Your task to perform on an android device: Open battery settings Image 0: 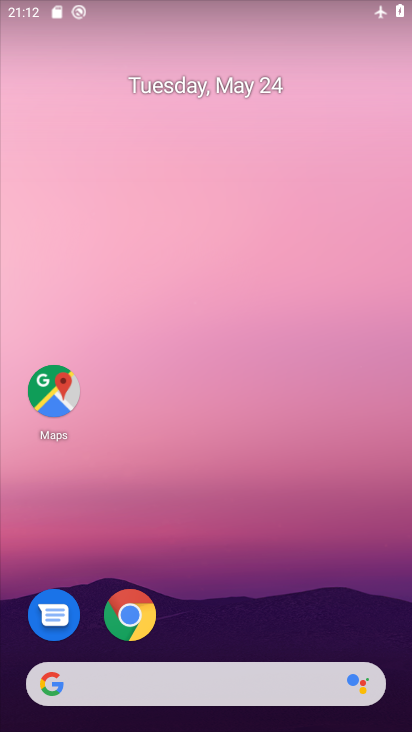
Step 0: drag from (238, 562) to (253, 218)
Your task to perform on an android device: Open battery settings Image 1: 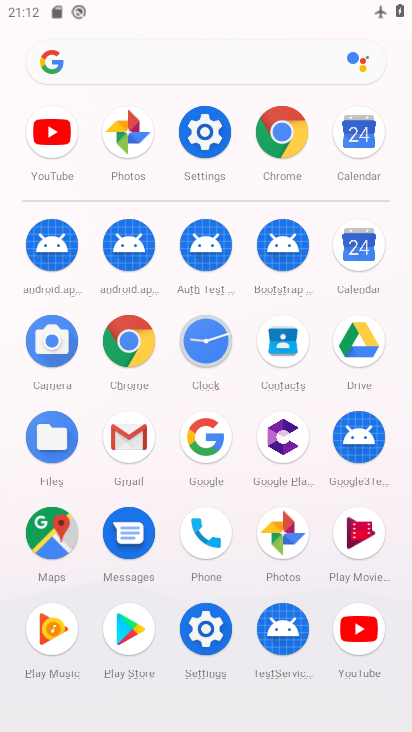
Step 1: click (203, 613)
Your task to perform on an android device: Open battery settings Image 2: 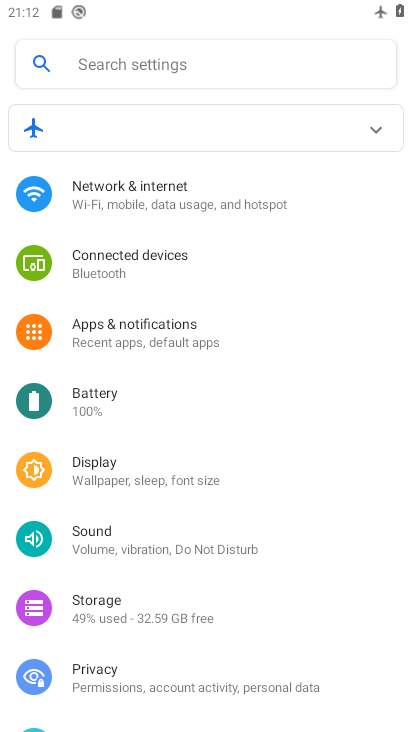
Step 2: click (124, 397)
Your task to perform on an android device: Open battery settings Image 3: 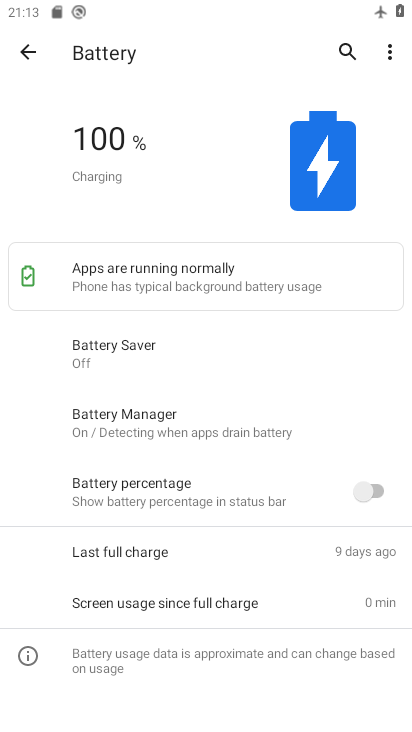
Step 3: task complete